Your task to perform on an android device: turn off location history Image 0: 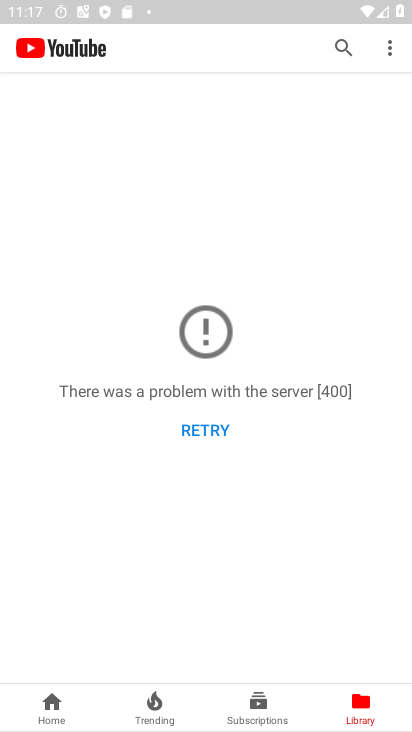
Step 0: press home button
Your task to perform on an android device: turn off location history Image 1: 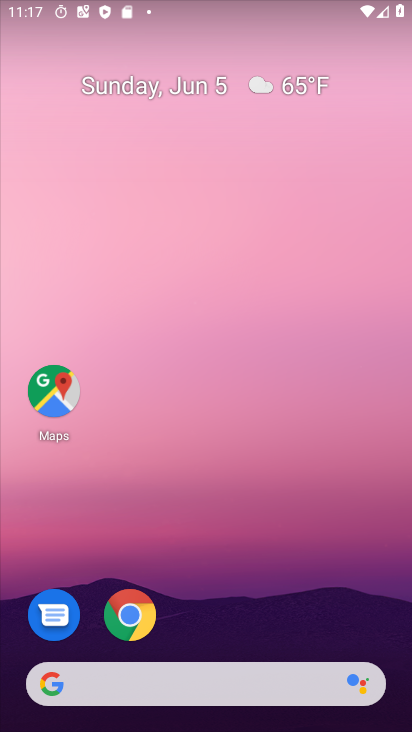
Step 1: drag from (135, 727) to (124, 2)
Your task to perform on an android device: turn off location history Image 2: 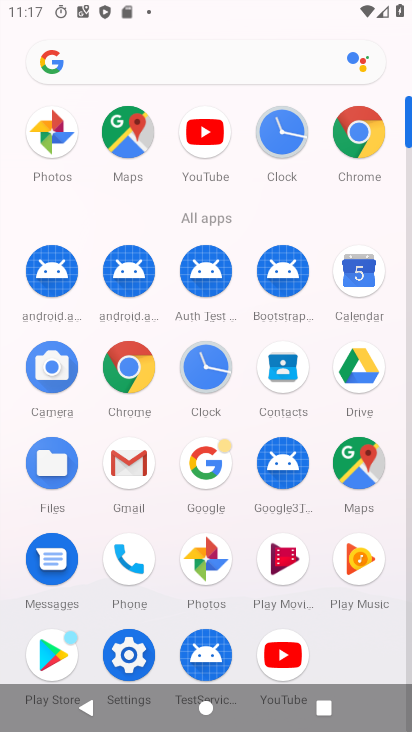
Step 2: click (129, 664)
Your task to perform on an android device: turn off location history Image 3: 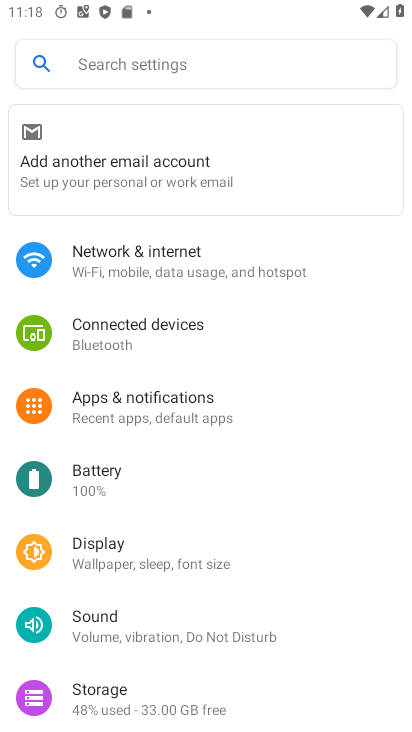
Step 3: drag from (221, 667) to (210, 129)
Your task to perform on an android device: turn off location history Image 4: 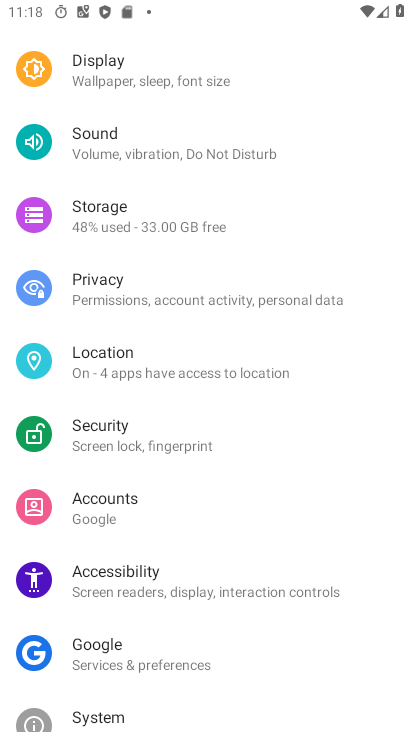
Step 4: click (132, 360)
Your task to perform on an android device: turn off location history Image 5: 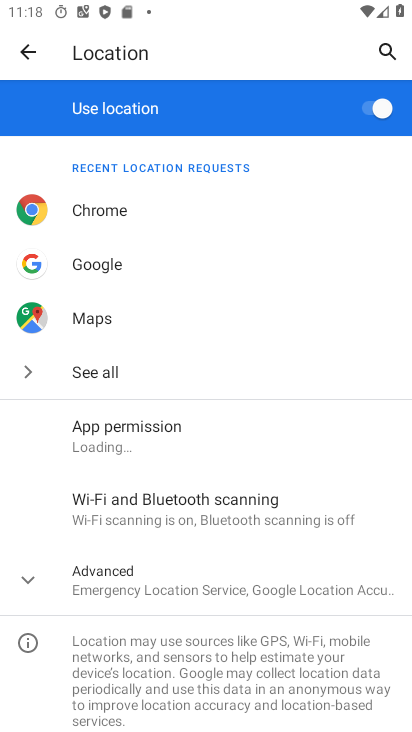
Step 5: click (145, 583)
Your task to perform on an android device: turn off location history Image 6: 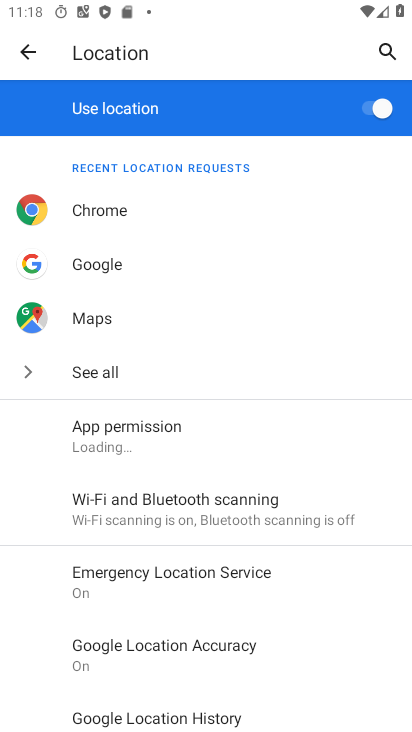
Step 6: click (231, 710)
Your task to perform on an android device: turn off location history Image 7: 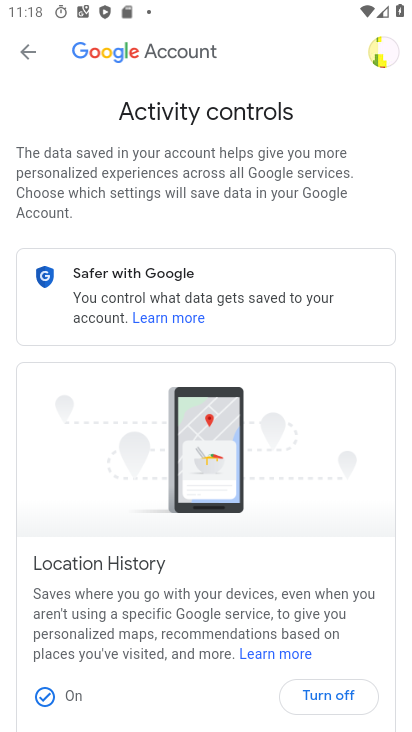
Step 7: click (350, 694)
Your task to perform on an android device: turn off location history Image 8: 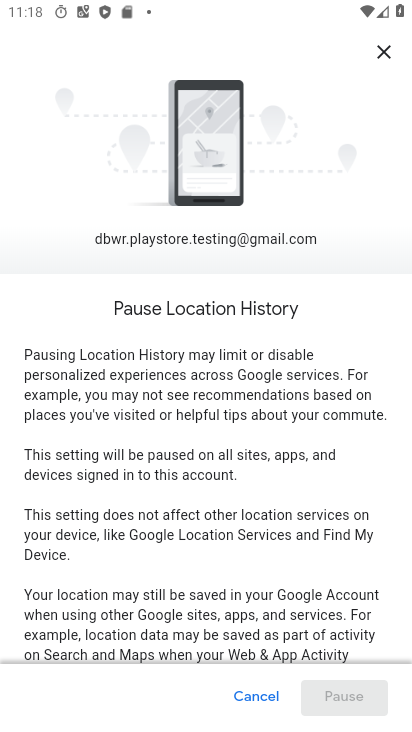
Step 8: drag from (309, 502) to (313, 173)
Your task to perform on an android device: turn off location history Image 9: 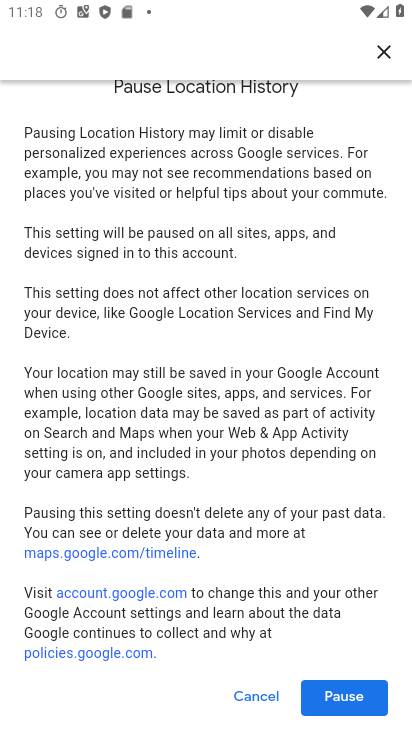
Step 9: click (329, 698)
Your task to perform on an android device: turn off location history Image 10: 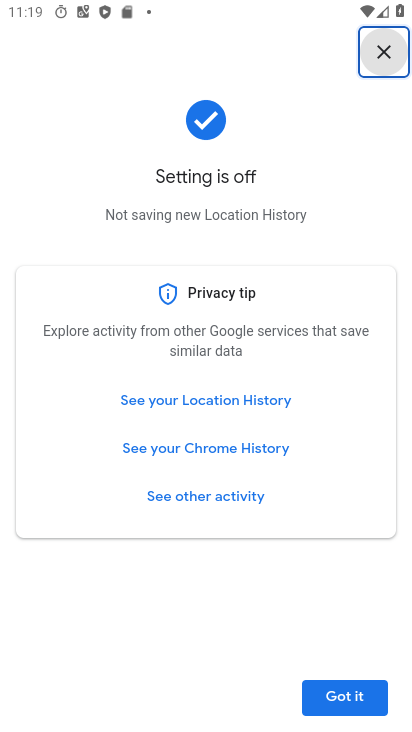
Step 10: click (334, 705)
Your task to perform on an android device: turn off location history Image 11: 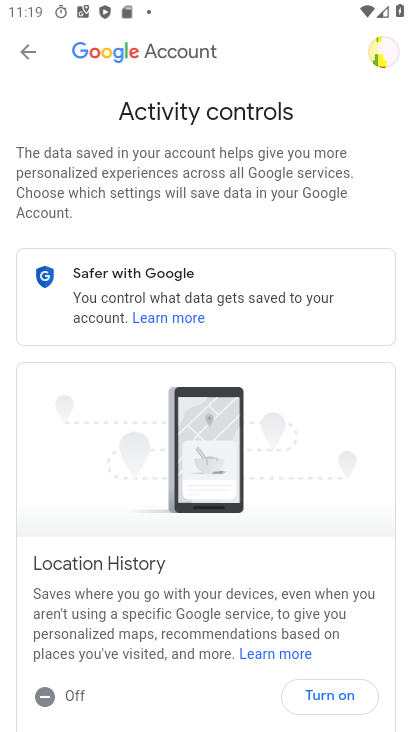
Step 11: task complete